Your task to perform on an android device: empty trash in google photos Image 0: 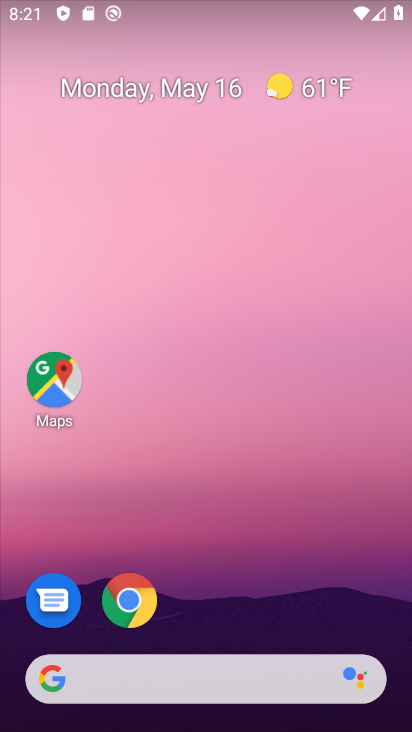
Step 0: drag from (270, 611) to (292, 0)
Your task to perform on an android device: empty trash in google photos Image 1: 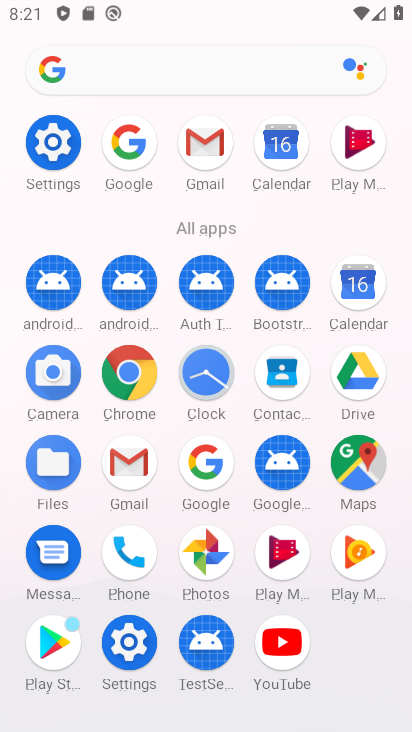
Step 1: click (192, 555)
Your task to perform on an android device: empty trash in google photos Image 2: 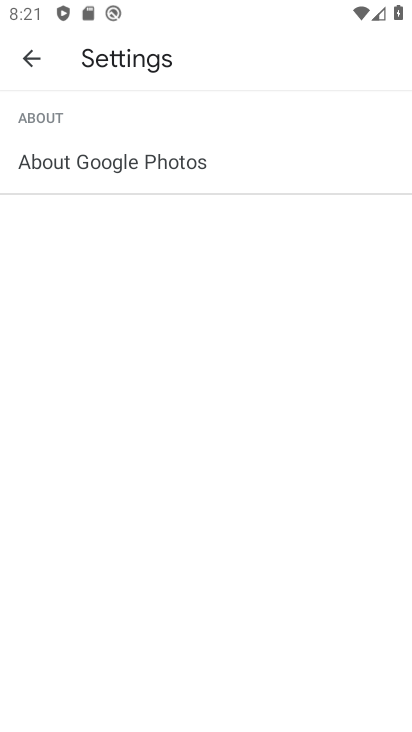
Step 2: click (27, 51)
Your task to perform on an android device: empty trash in google photos Image 3: 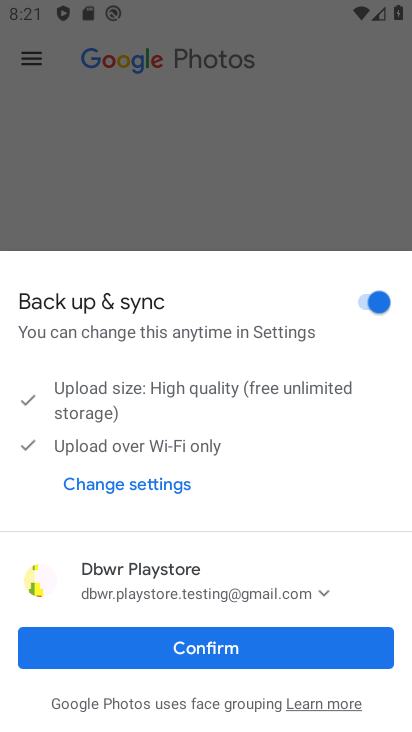
Step 3: click (27, 56)
Your task to perform on an android device: empty trash in google photos Image 4: 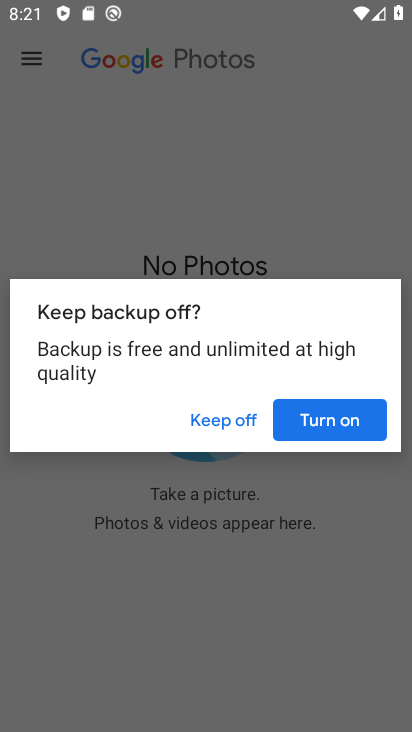
Step 4: click (312, 433)
Your task to perform on an android device: empty trash in google photos Image 5: 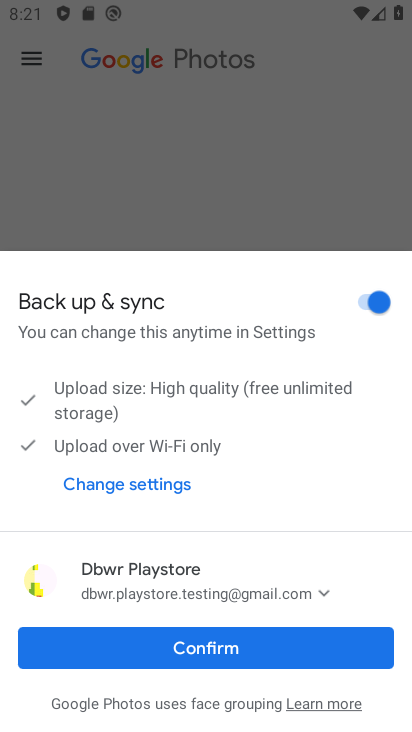
Step 5: click (210, 634)
Your task to perform on an android device: empty trash in google photos Image 6: 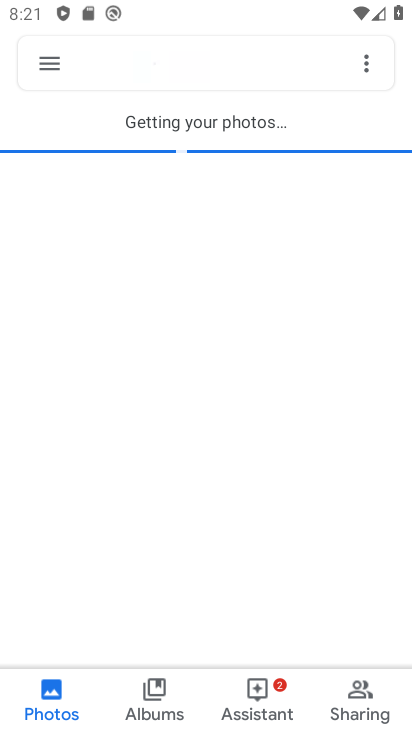
Step 6: click (47, 76)
Your task to perform on an android device: empty trash in google photos Image 7: 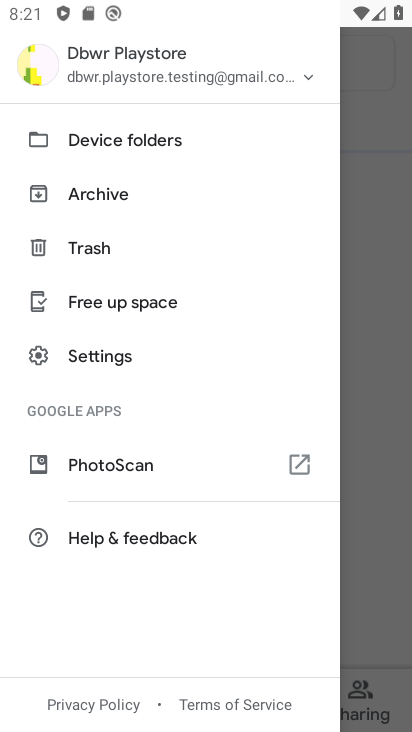
Step 7: click (126, 253)
Your task to perform on an android device: empty trash in google photos Image 8: 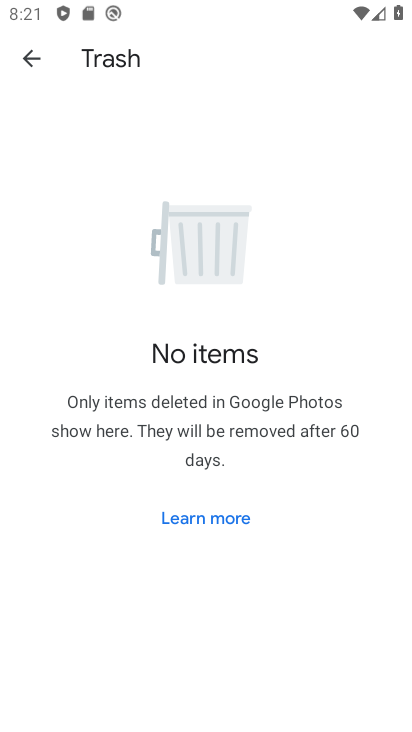
Step 8: task complete